Your task to perform on an android device: Go to ESPN.com Image 0: 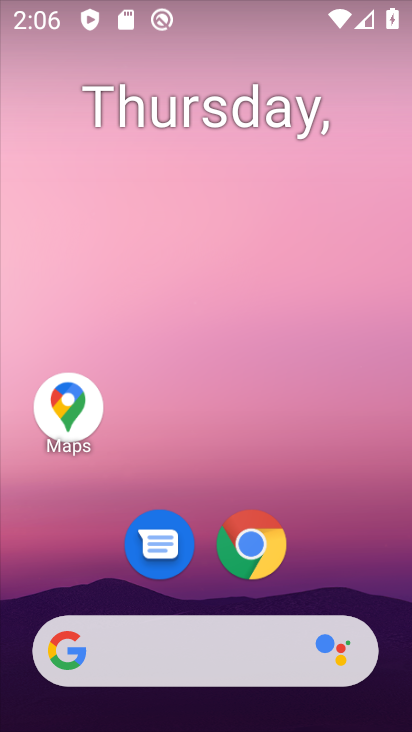
Step 0: click (272, 548)
Your task to perform on an android device: Go to ESPN.com Image 1: 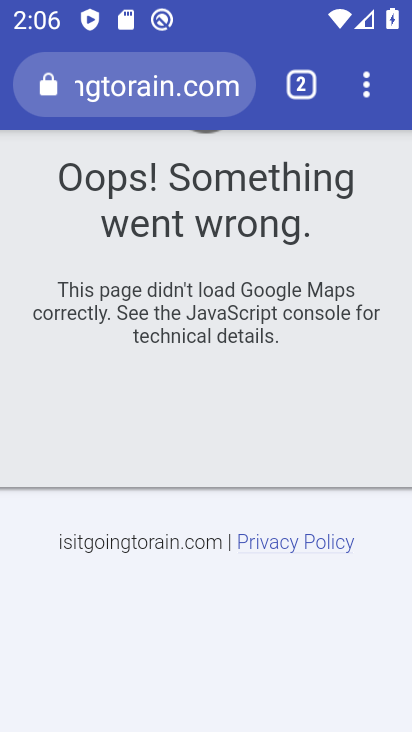
Step 1: click (367, 88)
Your task to perform on an android device: Go to ESPN.com Image 2: 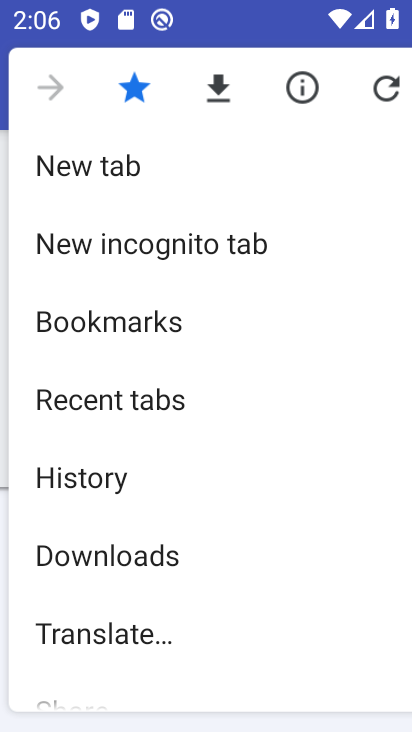
Step 2: click (112, 174)
Your task to perform on an android device: Go to ESPN.com Image 3: 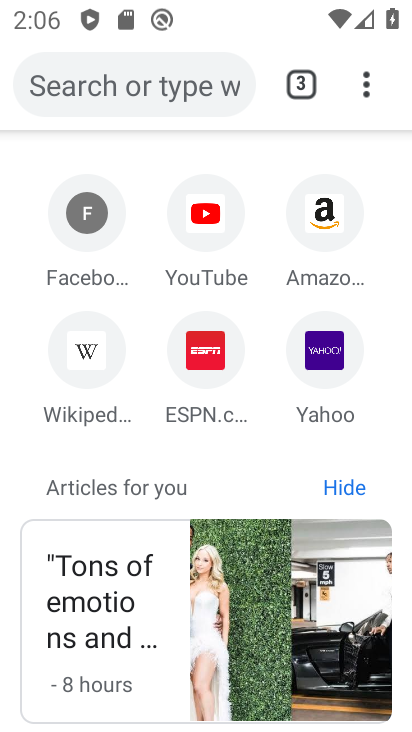
Step 3: click (214, 360)
Your task to perform on an android device: Go to ESPN.com Image 4: 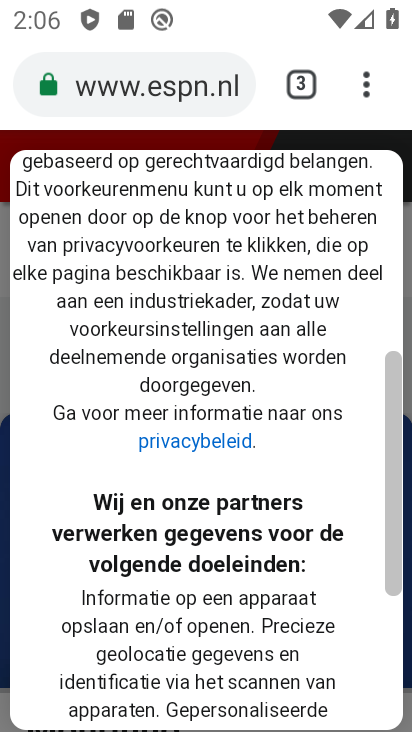
Step 4: drag from (257, 649) to (253, 339)
Your task to perform on an android device: Go to ESPN.com Image 5: 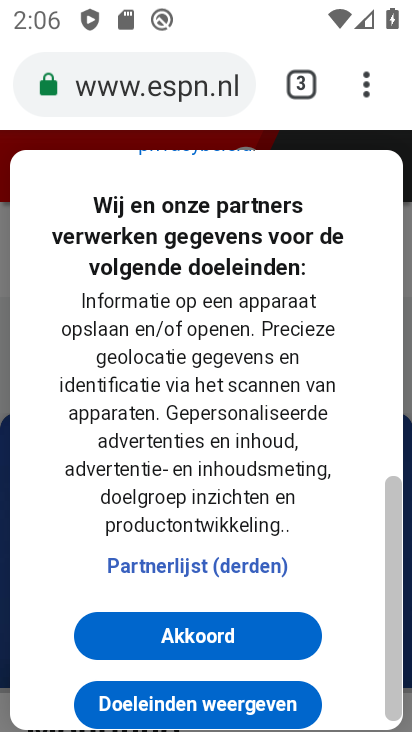
Step 5: click (219, 622)
Your task to perform on an android device: Go to ESPN.com Image 6: 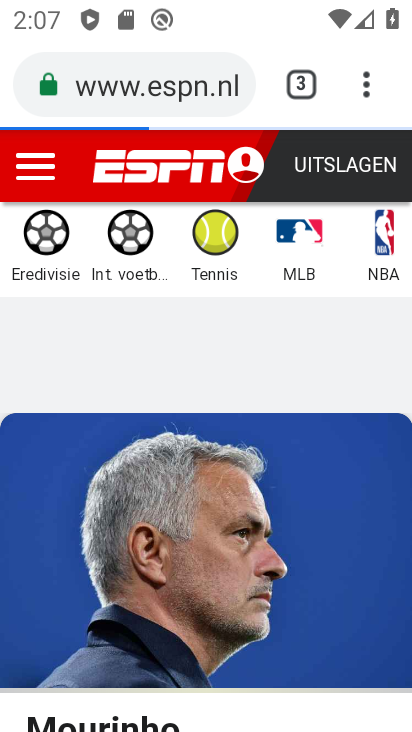
Step 6: task complete